Your task to perform on an android device: turn on location history Image 0: 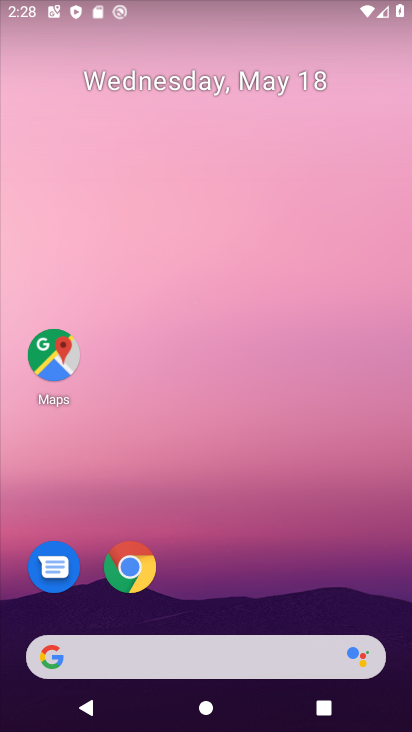
Step 0: drag from (331, 594) to (255, 130)
Your task to perform on an android device: turn on location history Image 1: 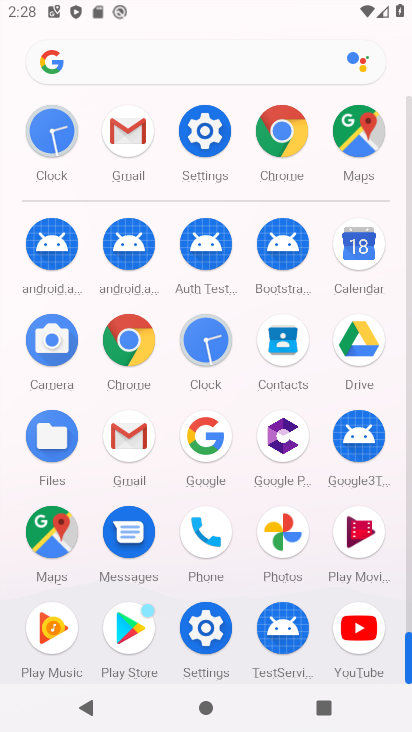
Step 1: click (220, 141)
Your task to perform on an android device: turn on location history Image 2: 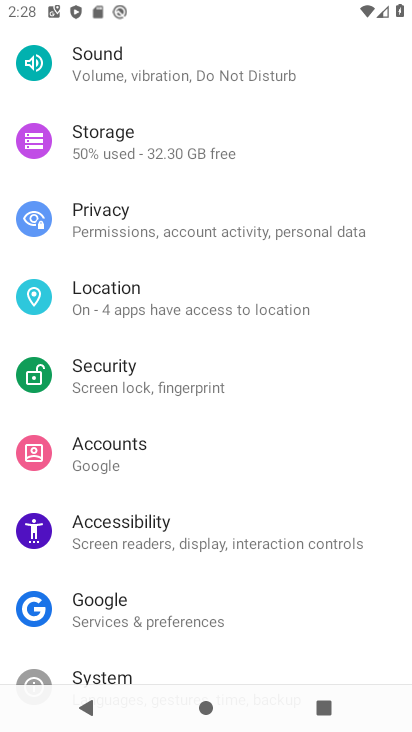
Step 2: drag from (220, 558) to (238, 409)
Your task to perform on an android device: turn on location history Image 3: 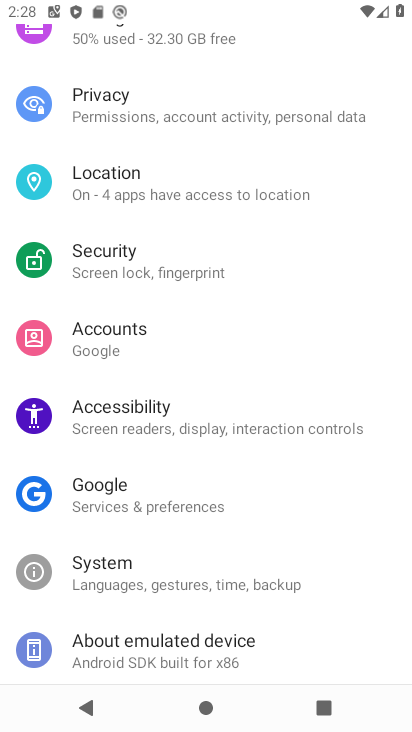
Step 3: click (190, 205)
Your task to perform on an android device: turn on location history Image 4: 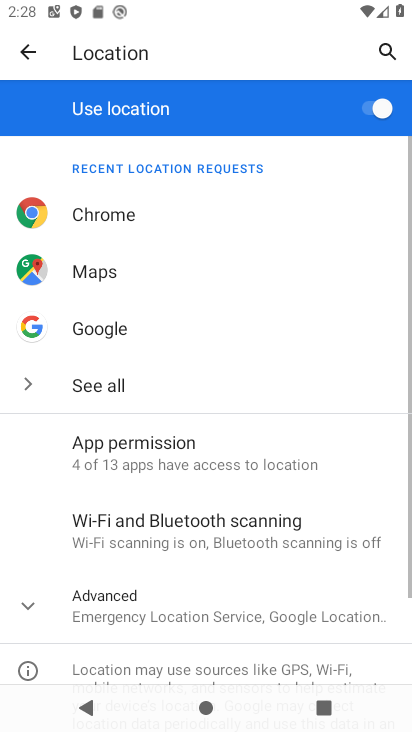
Step 4: drag from (277, 562) to (302, 212)
Your task to perform on an android device: turn on location history Image 5: 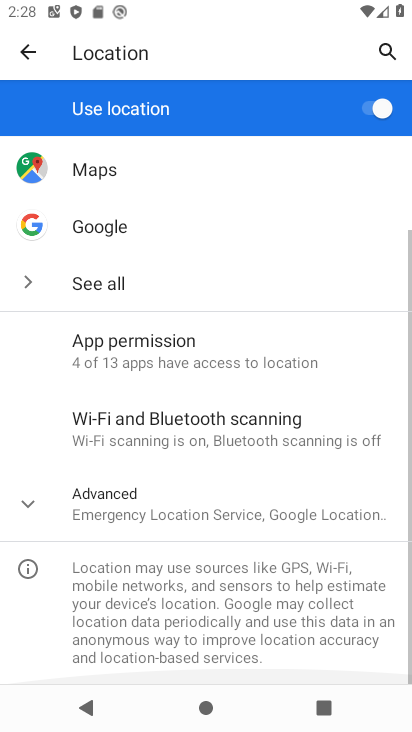
Step 5: click (181, 489)
Your task to perform on an android device: turn on location history Image 6: 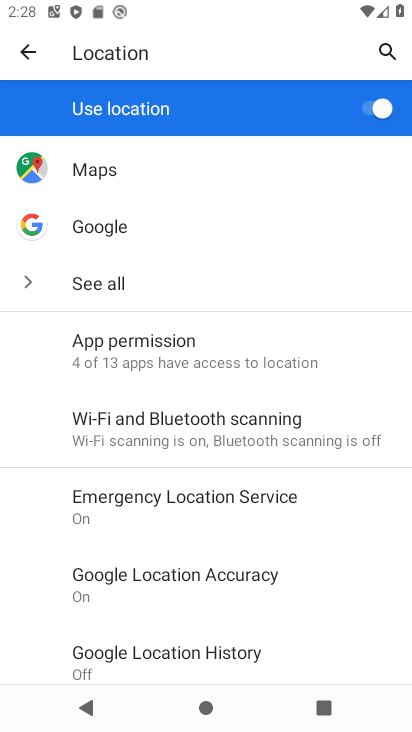
Step 6: drag from (320, 587) to (286, 245)
Your task to perform on an android device: turn on location history Image 7: 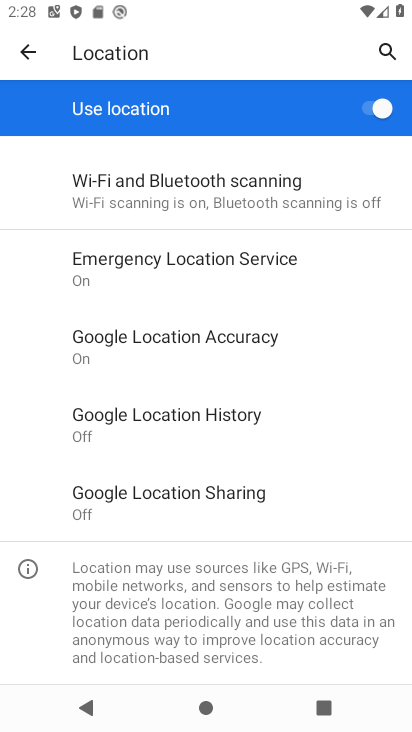
Step 7: click (228, 422)
Your task to perform on an android device: turn on location history Image 8: 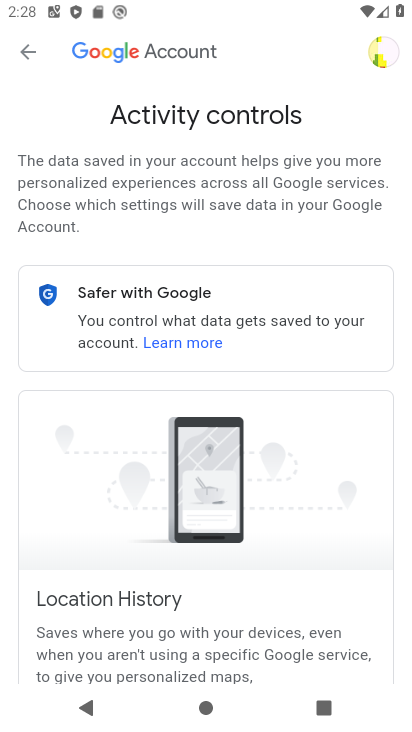
Step 8: drag from (289, 497) to (398, 82)
Your task to perform on an android device: turn on location history Image 9: 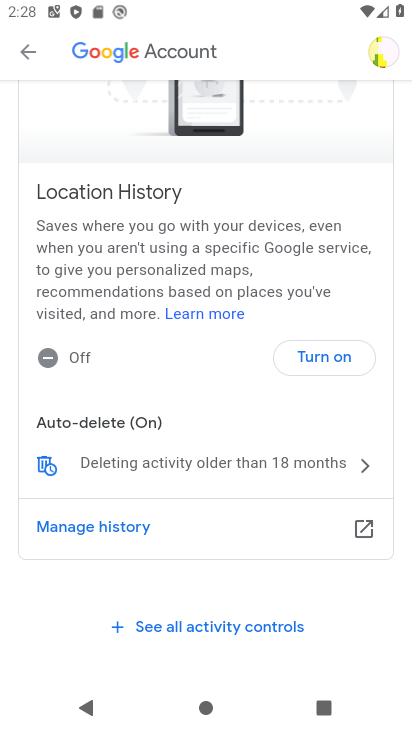
Step 9: drag from (251, 522) to (282, 129)
Your task to perform on an android device: turn on location history Image 10: 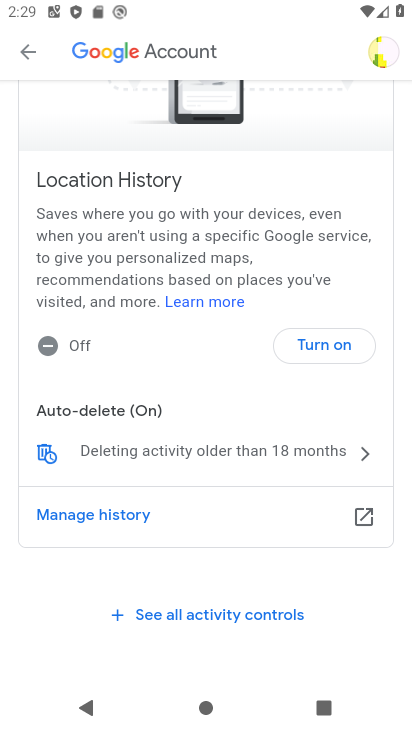
Step 10: click (333, 353)
Your task to perform on an android device: turn on location history Image 11: 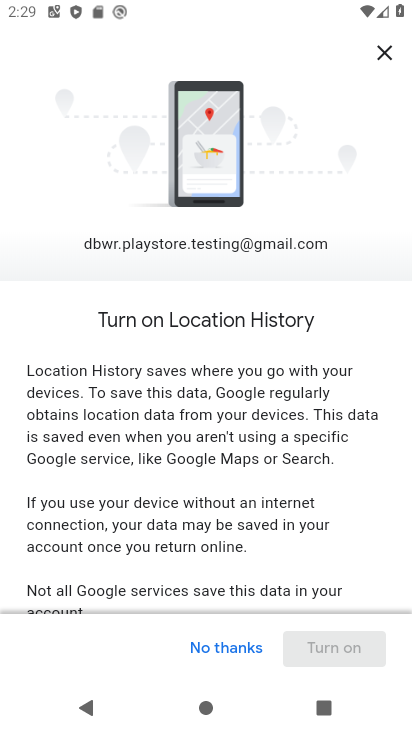
Step 11: drag from (310, 546) to (329, 187)
Your task to perform on an android device: turn on location history Image 12: 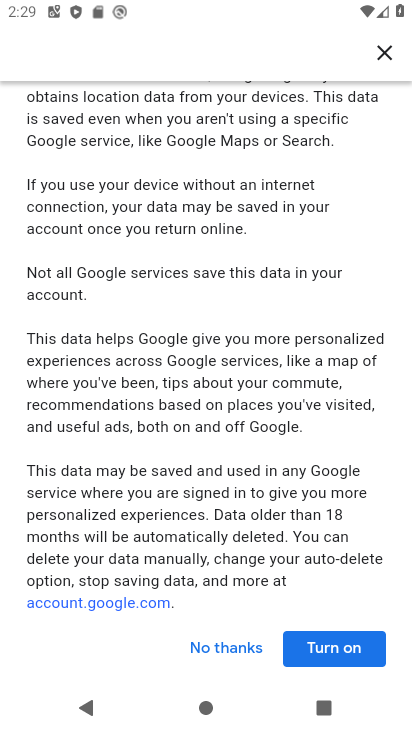
Step 12: click (352, 643)
Your task to perform on an android device: turn on location history Image 13: 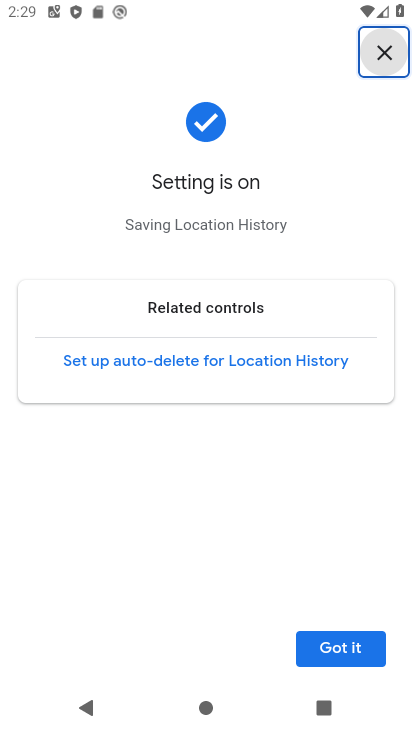
Step 13: task complete